Your task to perform on an android device: What's the price of the EGO 14-in 56-Volt Brushless Cordless Chainsaw? Image 0: 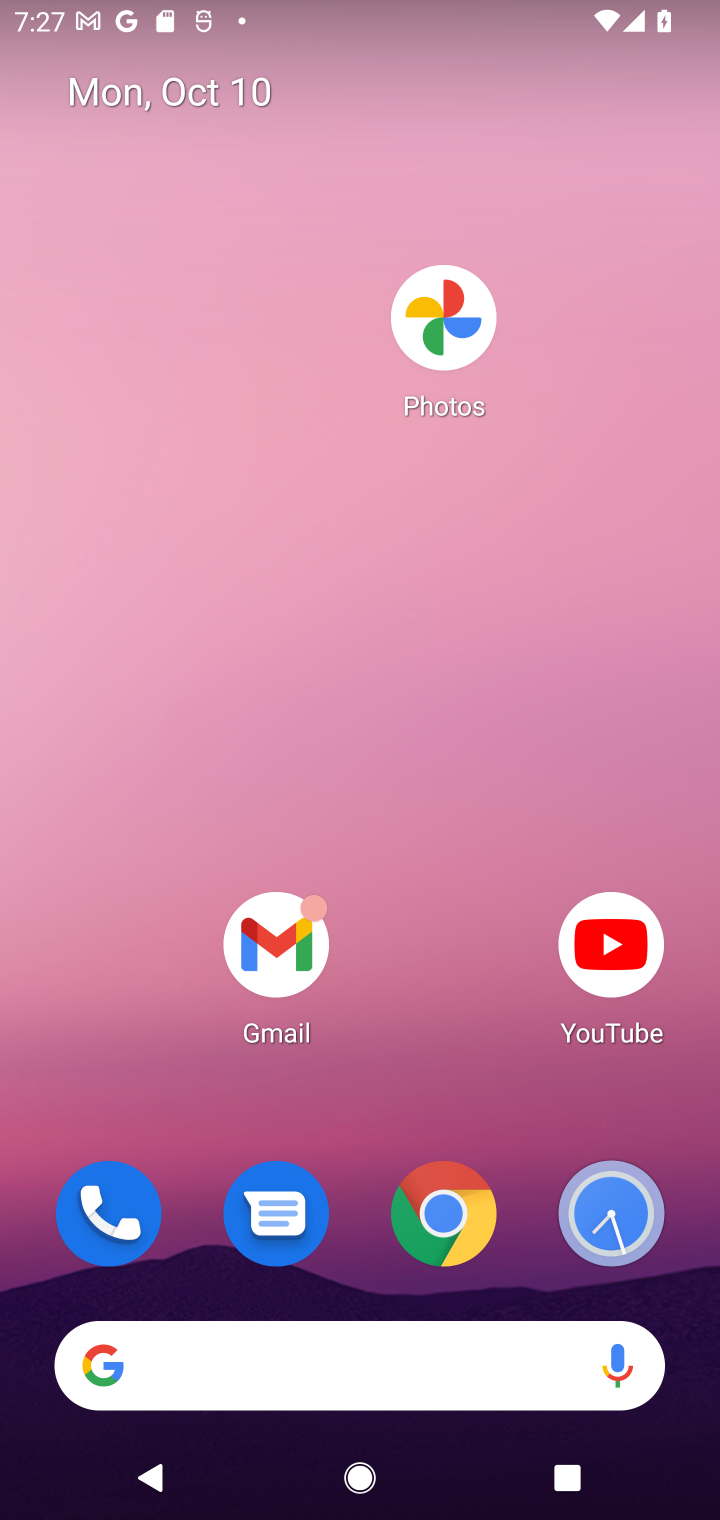
Step 0: click (366, 1332)
Your task to perform on an android device: What's the price of the EGO 14-in 56-Volt Brushless Cordless Chainsaw? Image 1: 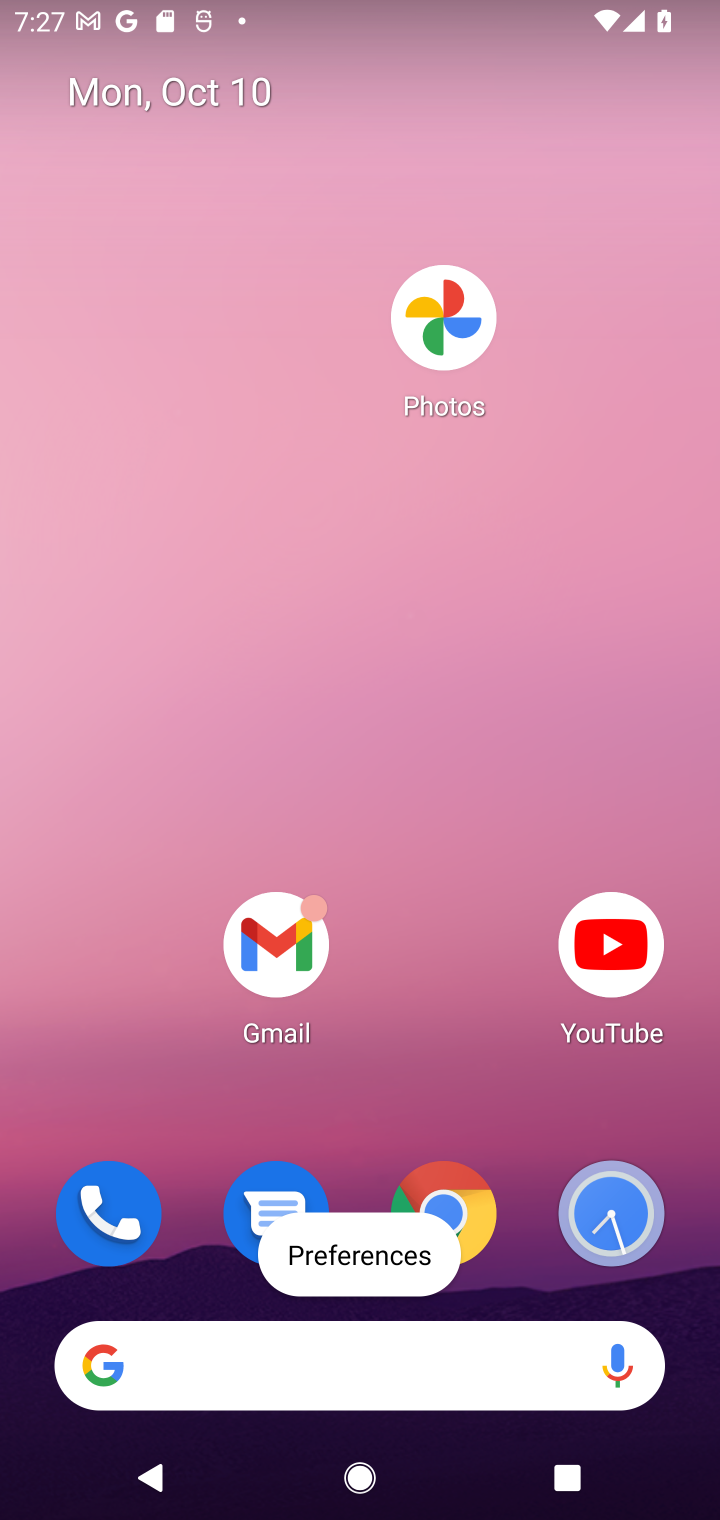
Step 1: click (303, 1363)
Your task to perform on an android device: What's the price of the EGO 14-in 56-Volt Brushless Cordless Chainsaw? Image 2: 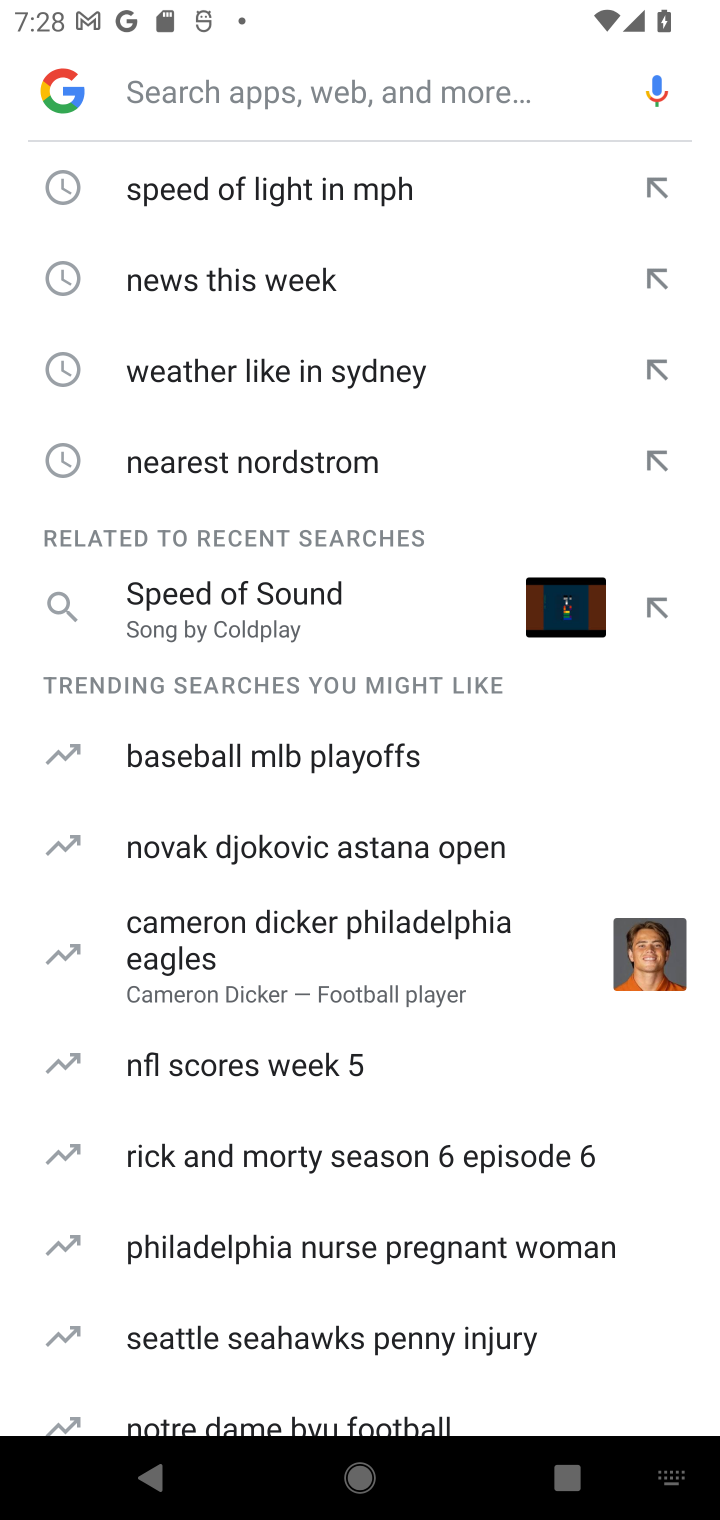
Step 2: type "price of the EGO 14-in 56-Volt Brushless Cordless Chainsaw"
Your task to perform on an android device: What's the price of the EGO 14-in 56-Volt Brushless Cordless Chainsaw? Image 3: 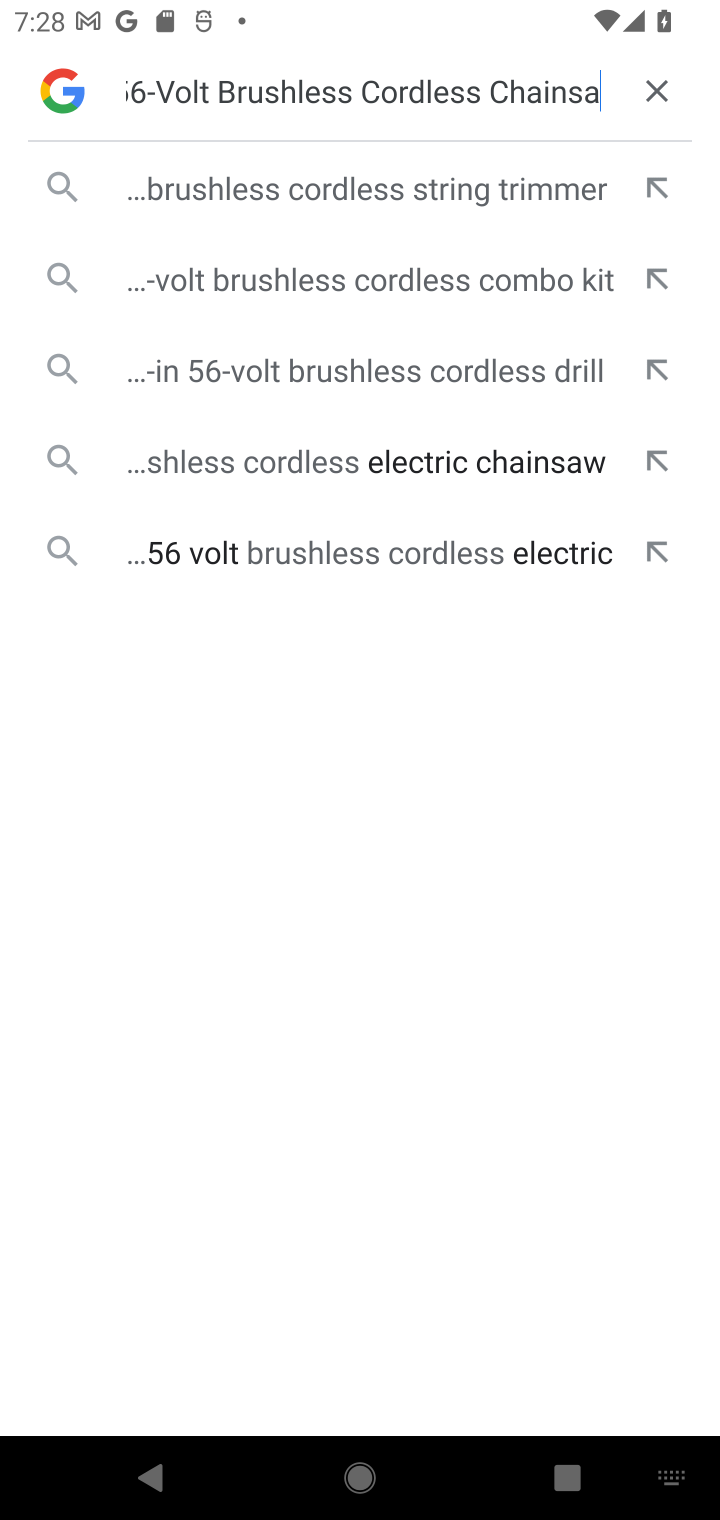
Step 3: type ""
Your task to perform on an android device: What's the price of the EGO 14-in 56-Volt Brushless Cordless Chainsaw? Image 4: 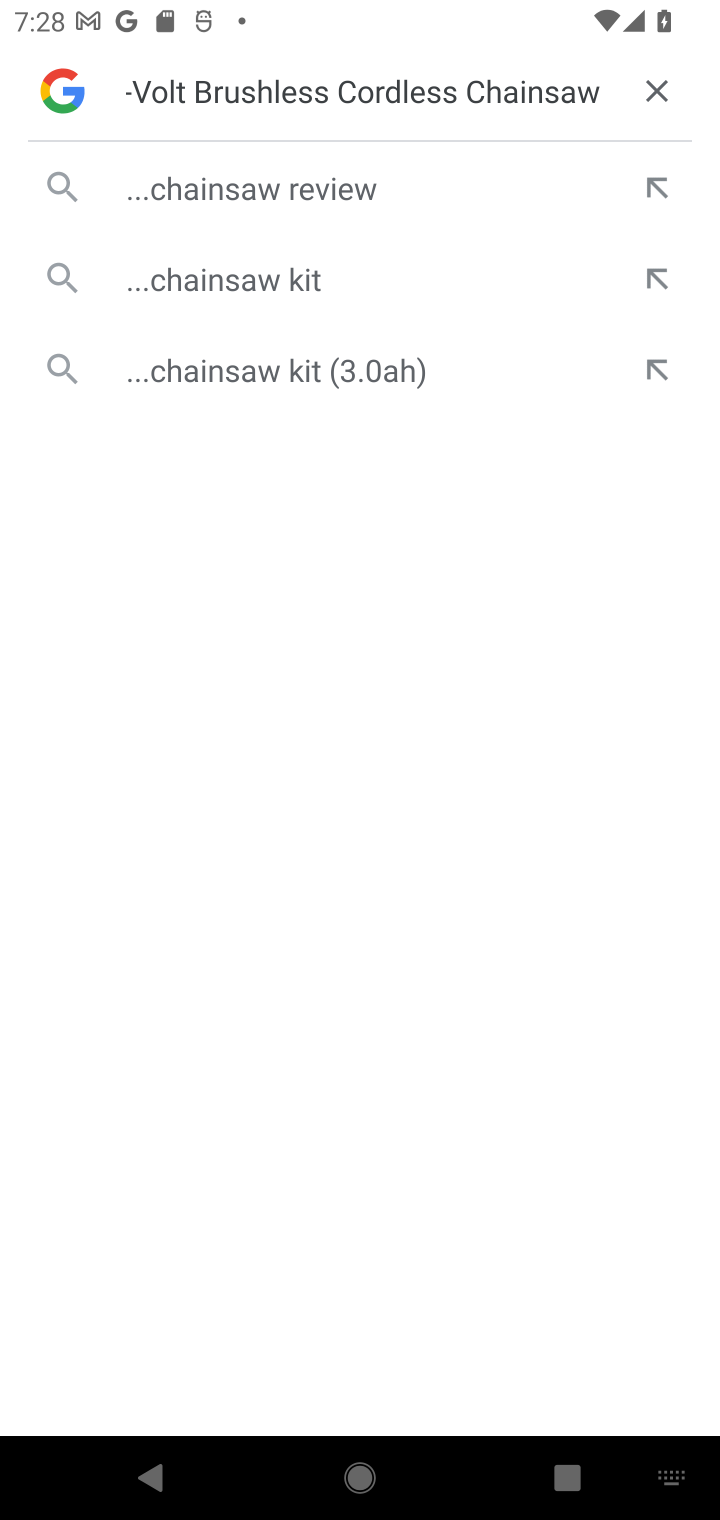
Step 4: click (384, 355)
Your task to perform on an android device: What's the price of the EGO 14-in 56-Volt Brushless Cordless Chainsaw? Image 5: 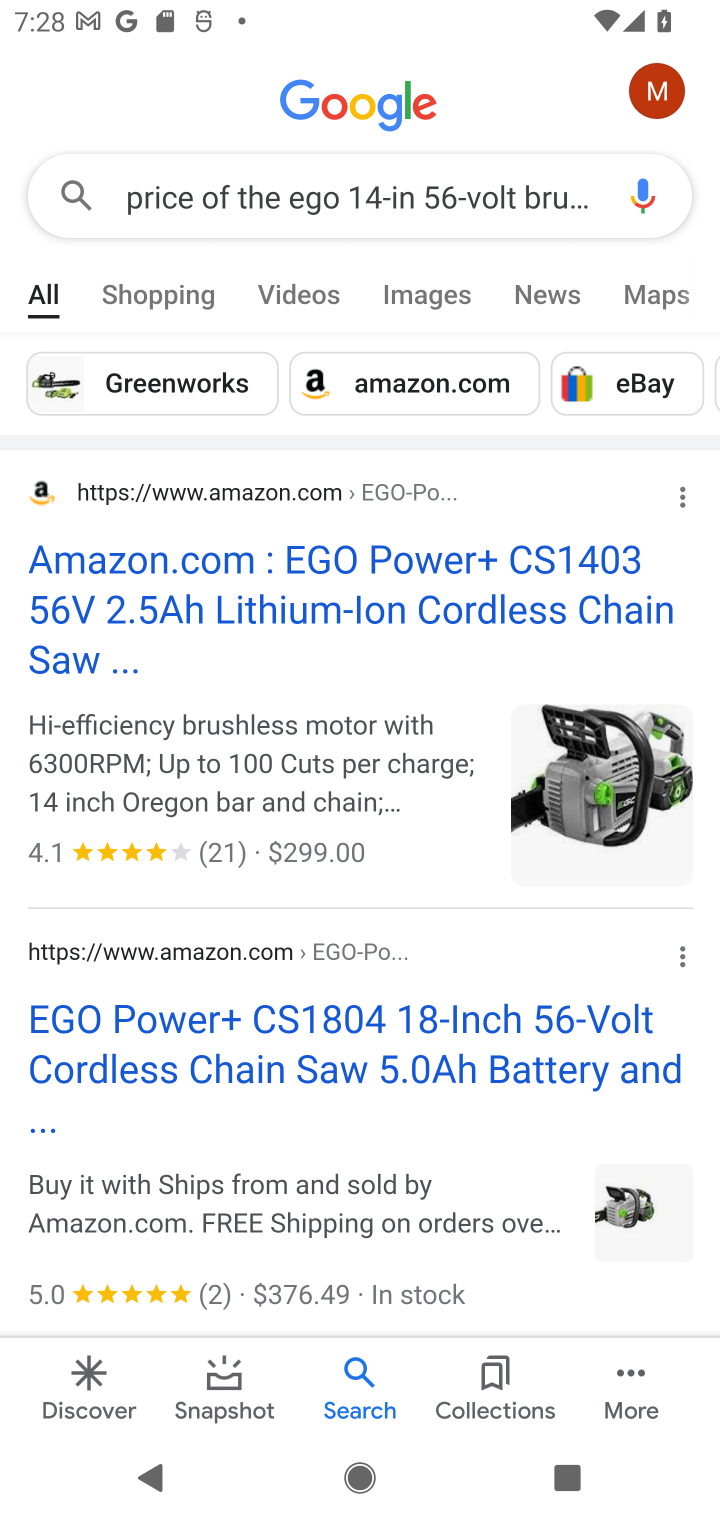
Step 5: task complete